Your task to perform on an android device: Show me popular videos on Youtube Image 0: 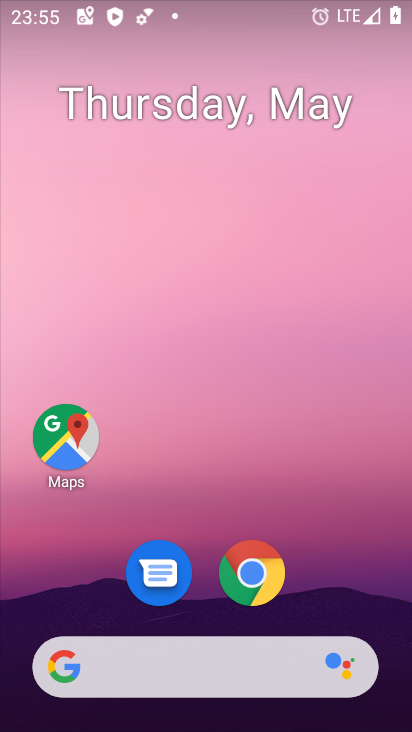
Step 0: drag from (201, 605) to (200, 201)
Your task to perform on an android device: Show me popular videos on Youtube Image 1: 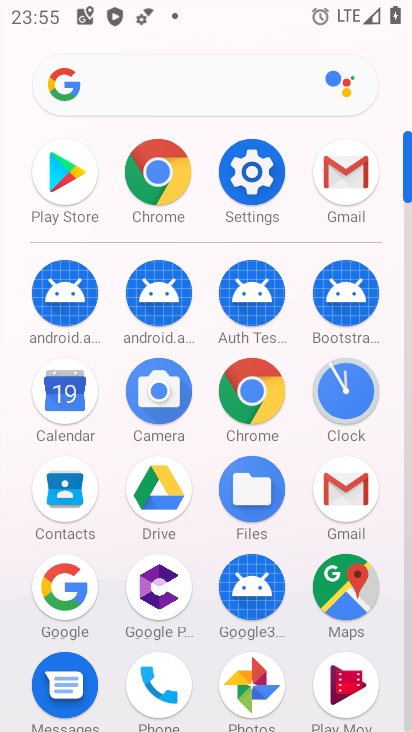
Step 1: drag from (291, 646) to (315, 242)
Your task to perform on an android device: Show me popular videos on Youtube Image 2: 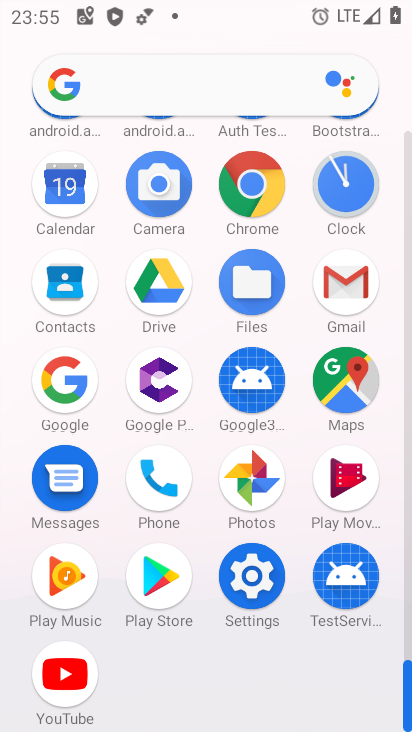
Step 2: click (74, 655)
Your task to perform on an android device: Show me popular videos on Youtube Image 3: 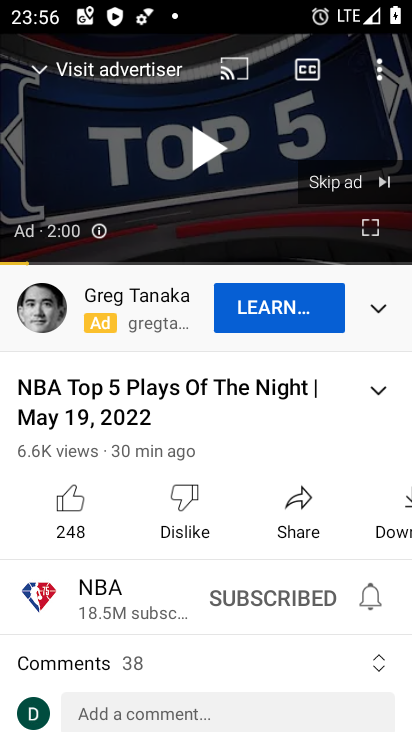
Step 3: drag from (329, 138) to (381, 537)
Your task to perform on an android device: Show me popular videos on Youtube Image 4: 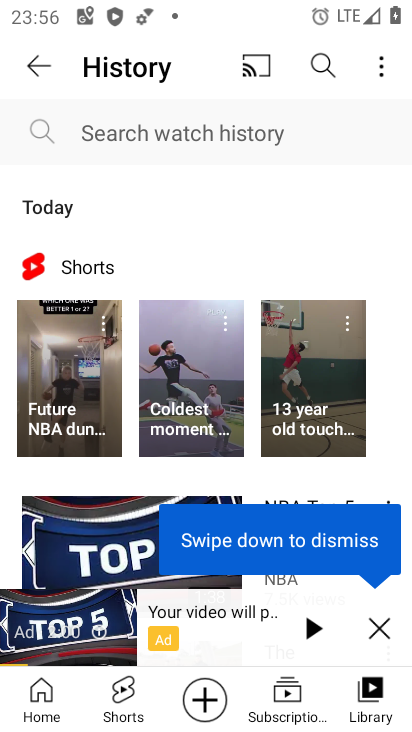
Step 4: click (369, 610)
Your task to perform on an android device: Show me popular videos on Youtube Image 5: 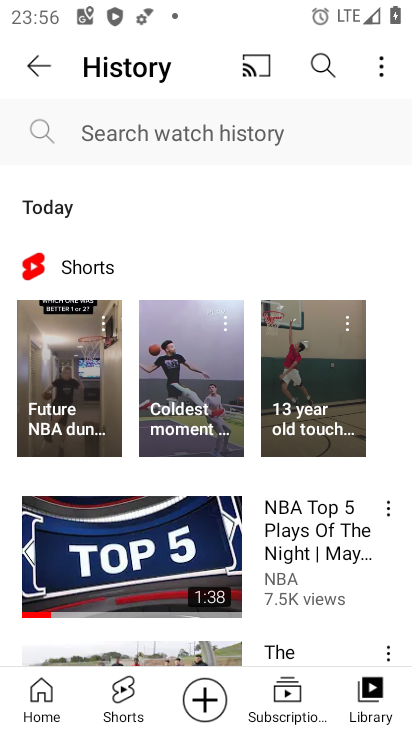
Step 5: click (310, 58)
Your task to perform on an android device: Show me popular videos on Youtube Image 6: 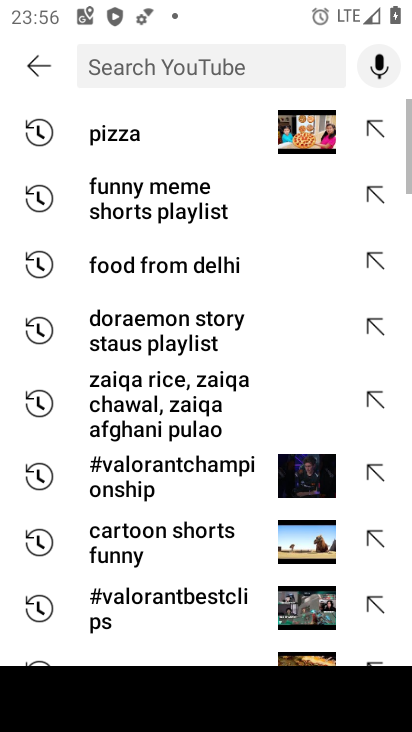
Step 6: click (221, 61)
Your task to perform on an android device: Show me popular videos on Youtube Image 7: 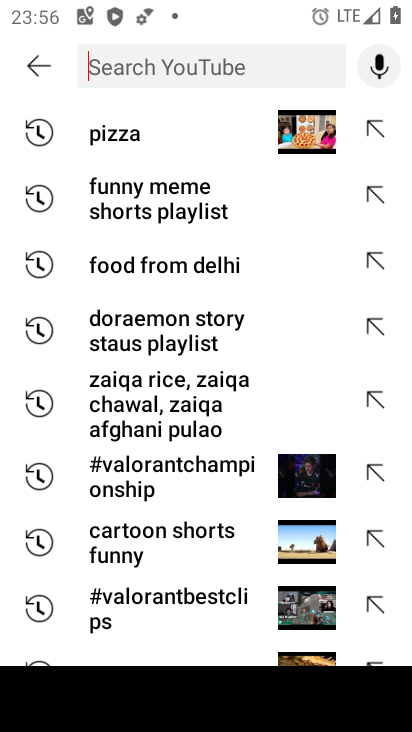
Step 7: type "popular videos "
Your task to perform on an android device: Show me popular videos on Youtube Image 8: 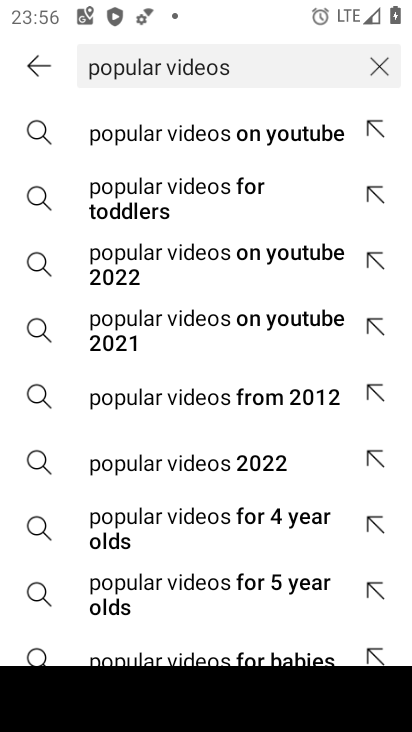
Step 8: click (232, 137)
Your task to perform on an android device: Show me popular videos on Youtube Image 9: 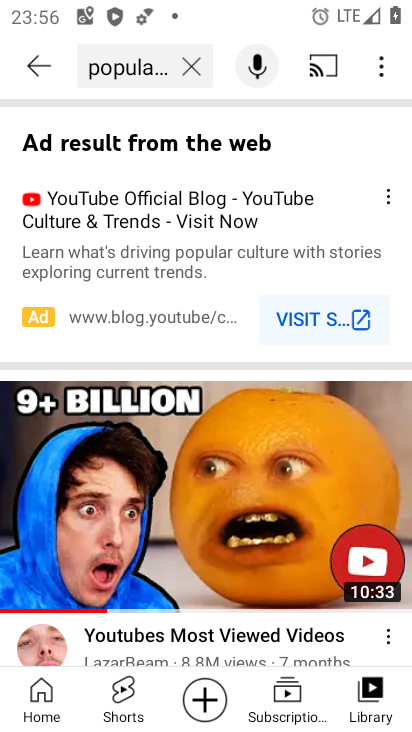
Step 9: task complete